Your task to perform on an android device: change the clock display to analog Image 0: 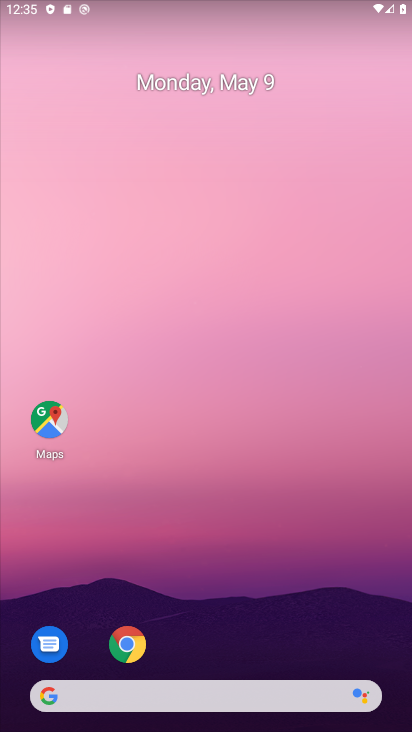
Step 0: drag from (266, 635) to (148, 147)
Your task to perform on an android device: change the clock display to analog Image 1: 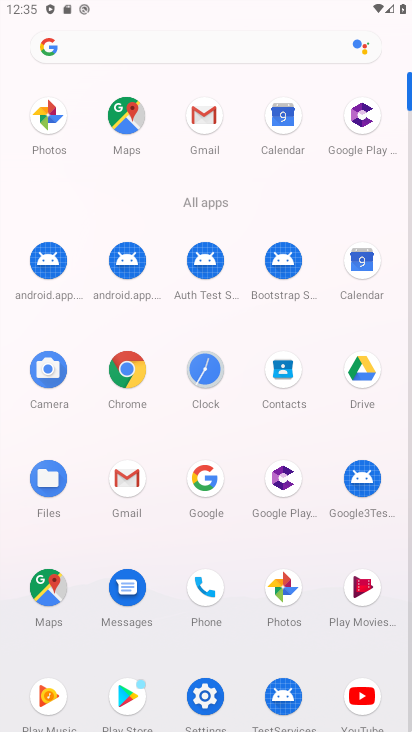
Step 1: click (204, 384)
Your task to perform on an android device: change the clock display to analog Image 2: 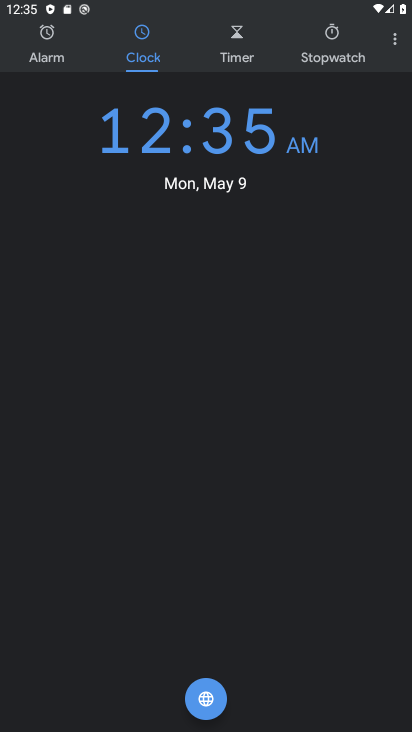
Step 2: click (395, 42)
Your task to perform on an android device: change the clock display to analog Image 3: 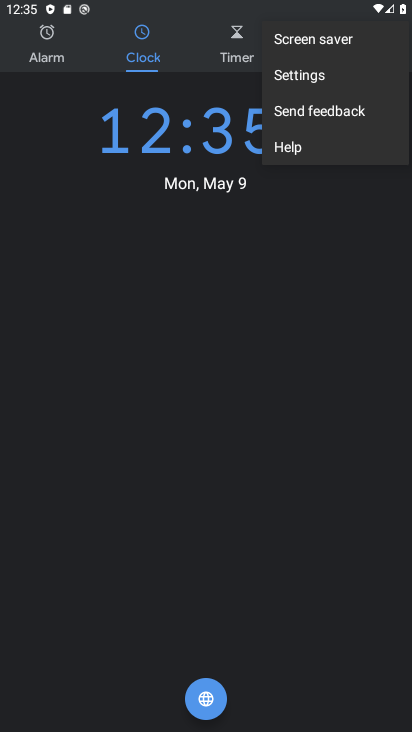
Step 3: click (344, 77)
Your task to perform on an android device: change the clock display to analog Image 4: 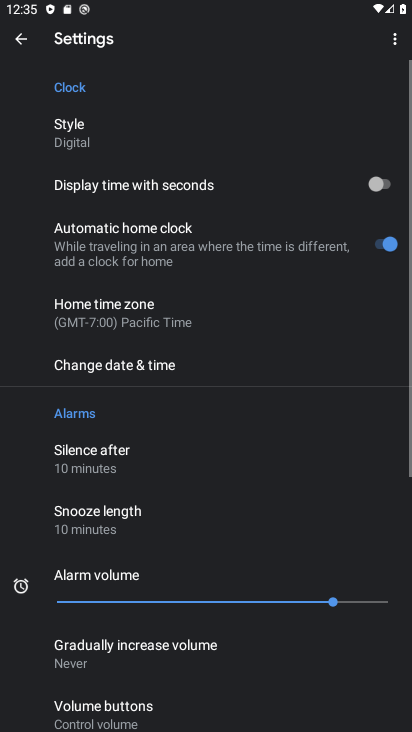
Step 4: click (94, 129)
Your task to perform on an android device: change the clock display to analog Image 5: 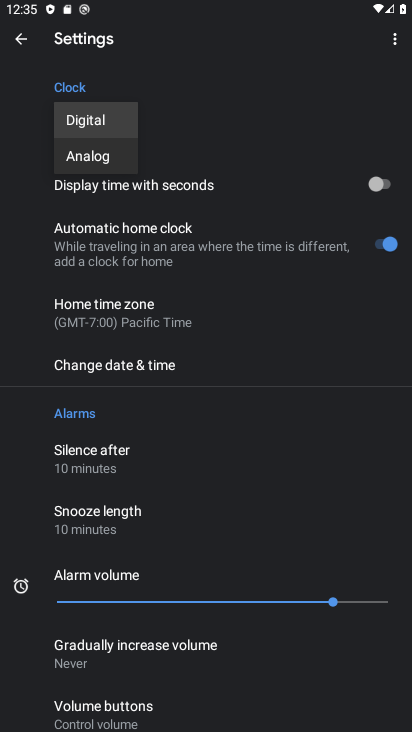
Step 5: click (109, 163)
Your task to perform on an android device: change the clock display to analog Image 6: 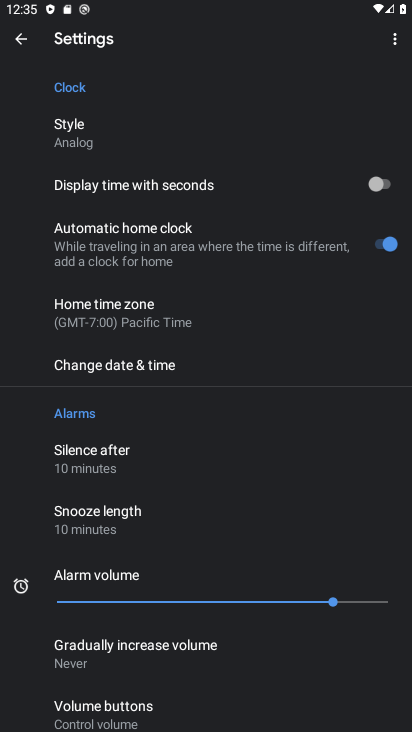
Step 6: task complete